Your task to perform on an android device: delete the emails in spam in the gmail app Image 0: 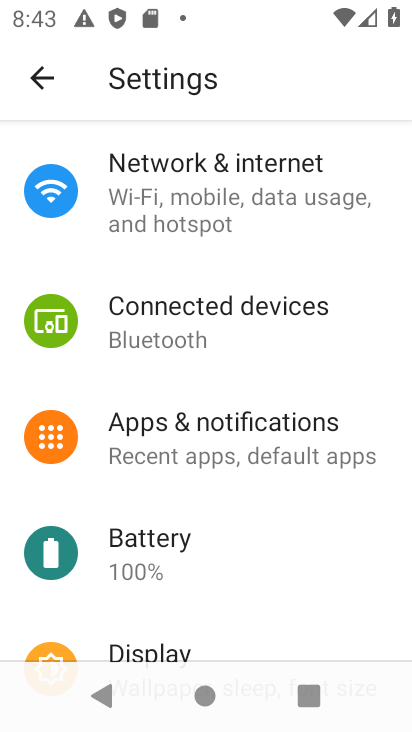
Step 0: drag from (305, 619) to (329, 238)
Your task to perform on an android device: delete the emails in spam in the gmail app Image 1: 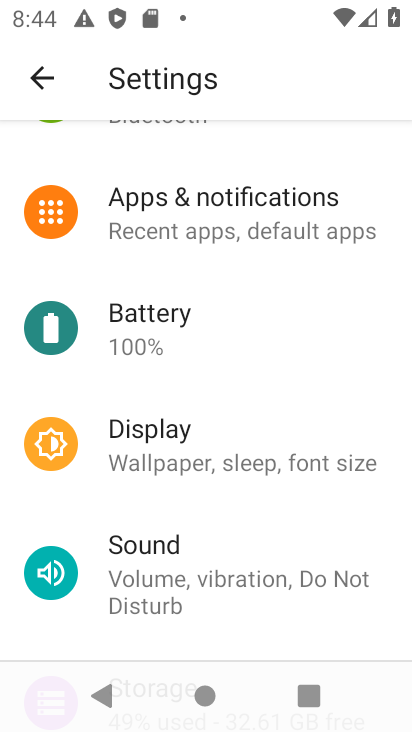
Step 1: press home button
Your task to perform on an android device: delete the emails in spam in the gmail app Image 2: 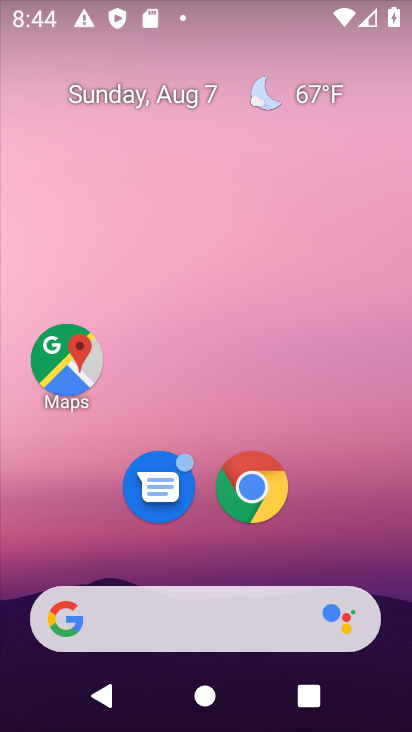
Step 2: drag from (401, 694) to (322, 115)
Your task to perform on an android device: delete the emails in spam in the gmail app Image 3: 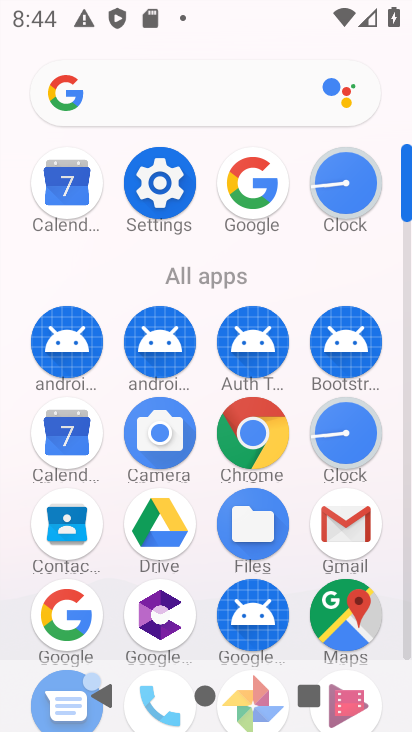
Step 3: click (347, 553)
Your task to perform on an android device: delete the emails in spam in the gmail app Image 4: 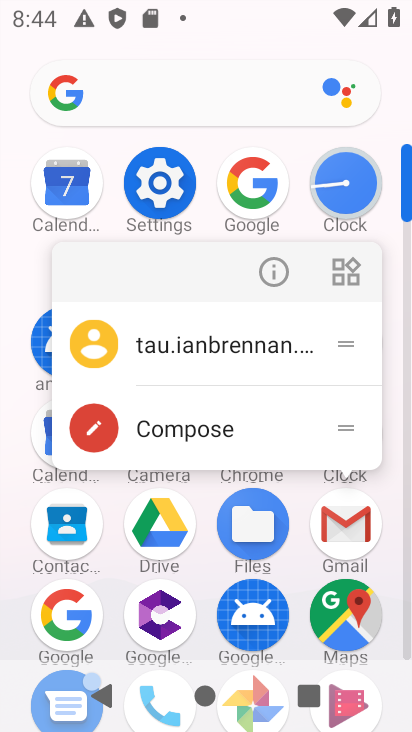
Step 4: click (347, 521)
Your task to perform on an android device: delete the emails in spam in the gmail app Image 5: 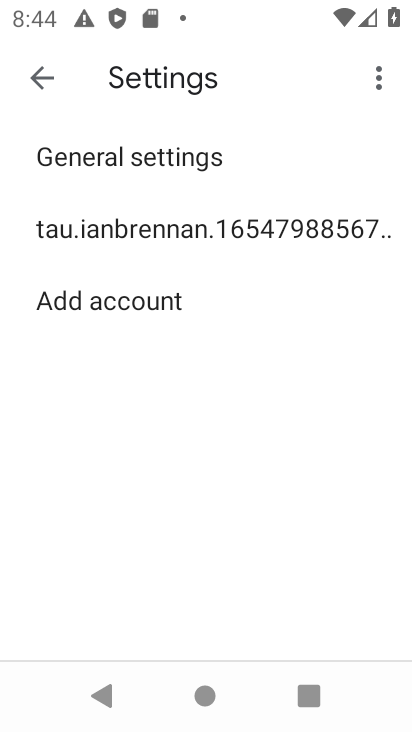
Step 5: click (151, 227)
Your task to perform on an android device: delete the emails in spam in the gmail app Image 6: 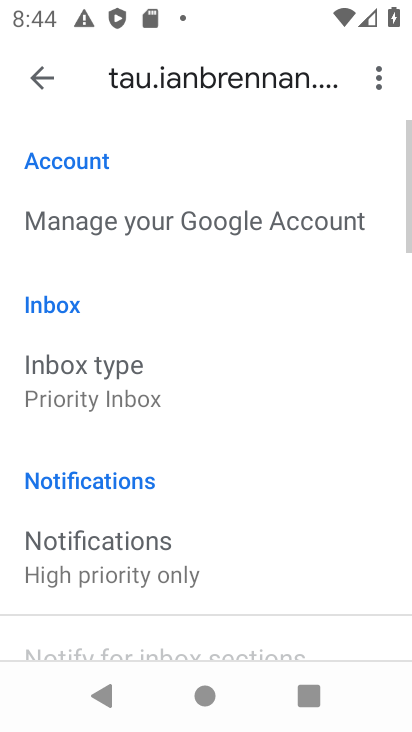
Step 6: click (36, 79)
Your task to perform on an android device: delete the emails in spam in the gmail app Image 7: 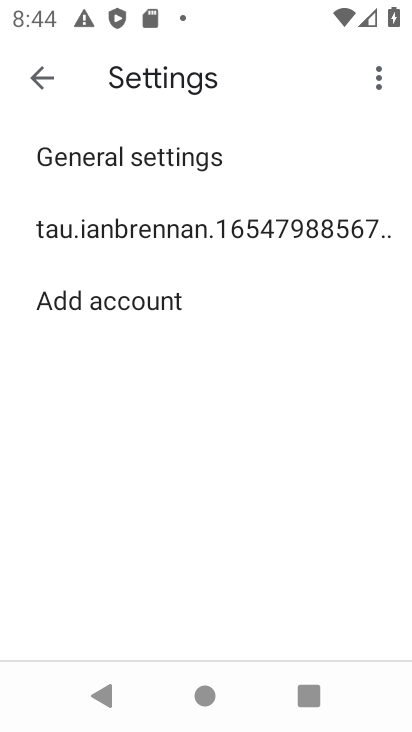
Step 7: click (36, 79)
Your task to perform on an android device: delete the emails in spam in the gmail app Image 8: 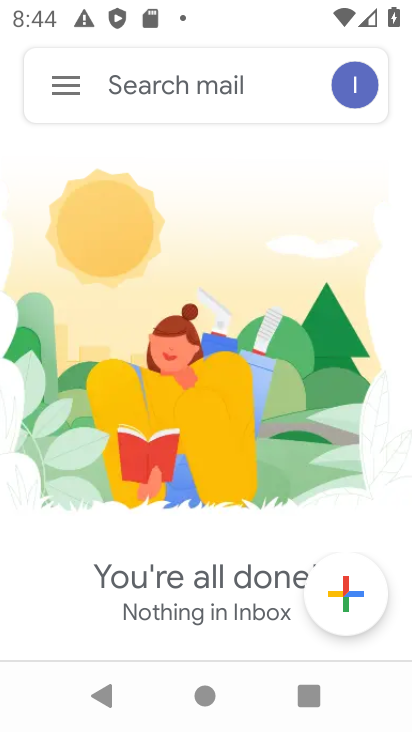
Step 8: task complete